Your task to perform on an android device: see sites visited before in the chrome app Image 0: 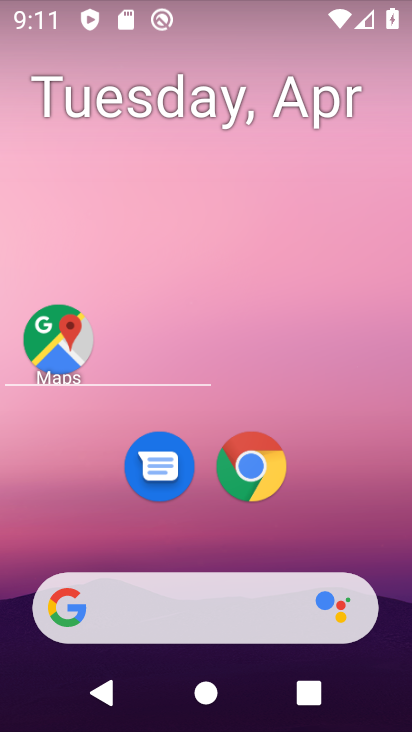
Step 0: drag from (328, 476) to (334, 231)
Your task to perform on an android device: see sites visited before in the chrome app Image 1: 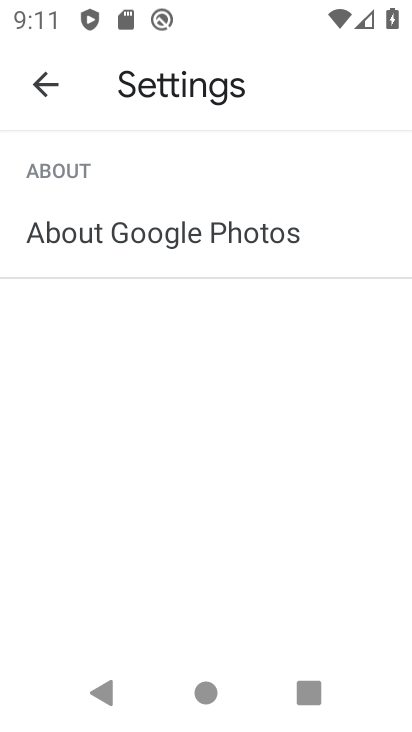
Step 1: press back button
Your task to perform on an android device: see sites visited before in the chrome app Image 2: 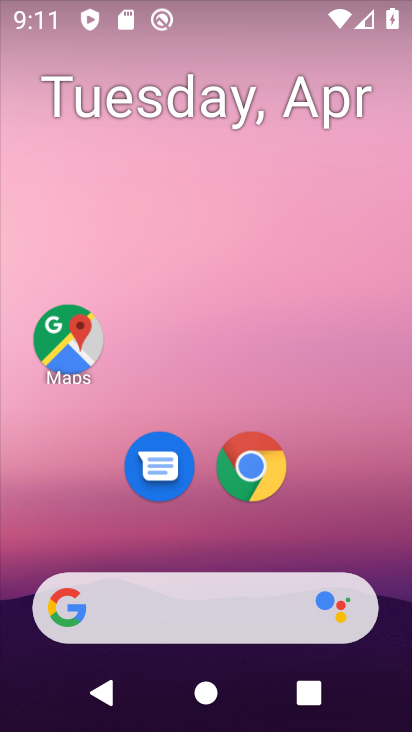
Step 2: click (255, 477)
Your task to perform on an android device: see sites visited before in the chrome app Image 3: 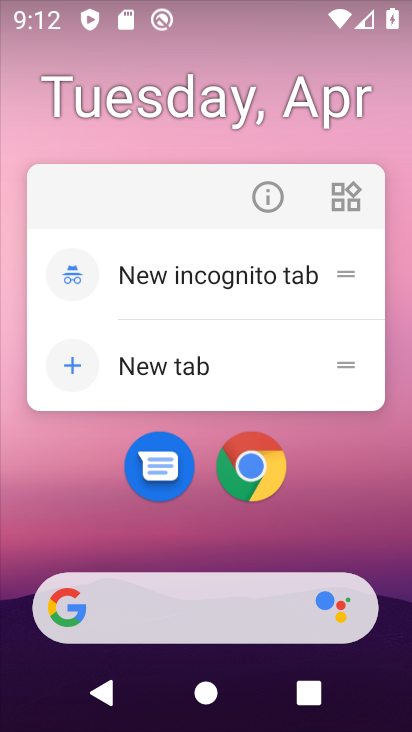
Step 3: click (255, 477)
Your task to perform on an android device: see sites visited before in the chrome app Image 4: 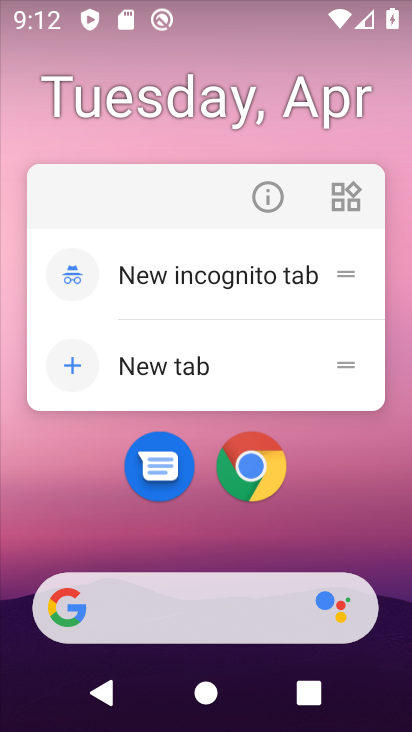
Step 4: click (255, 477)
Your task to perform on an android device: see sites visited before in the chrome app Image 5: 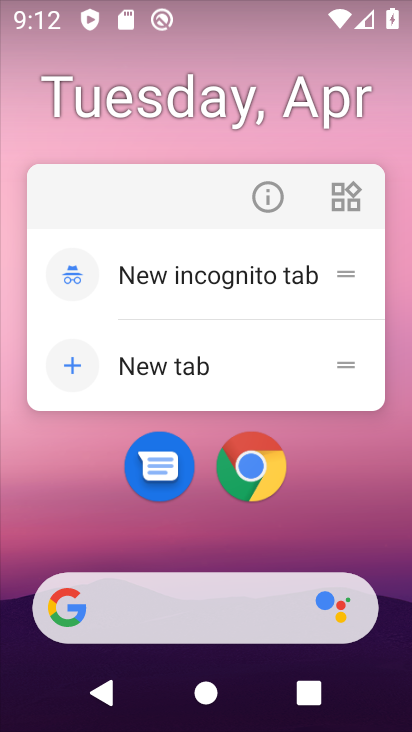
Step 5: click (255, 477)
Your task to perform on an android device: see sites visited before in the chrome app Image 6: 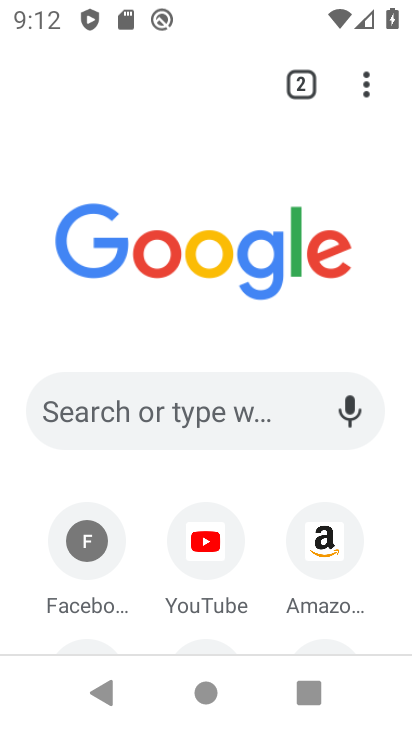
Step 6: click (369, 77)
Your task to perform on an android device: see sites visited before in the chrome app Image 7: 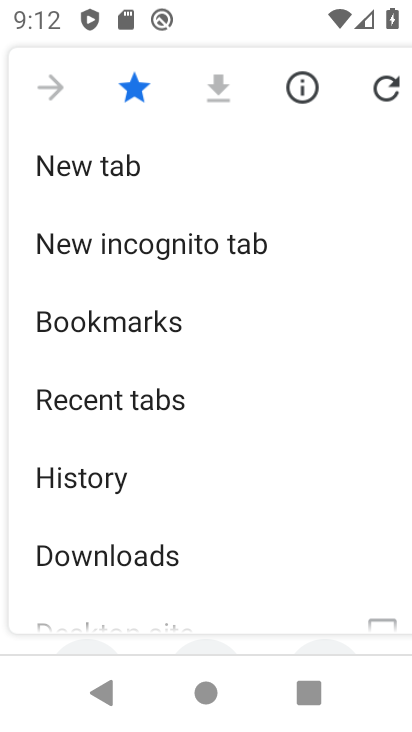
Step 7: click (200, 472)
Your task to perform on an android device: see sites visited before in the chrome app Image 8: 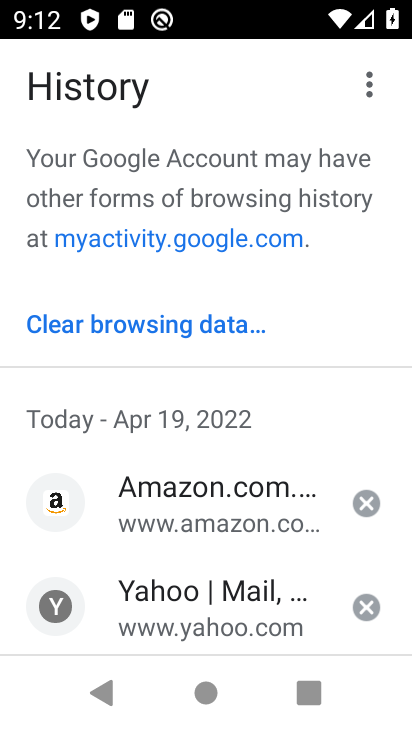
Step 8: task complete